Your task to perform on an android device: change the clock display to digital Image 0: 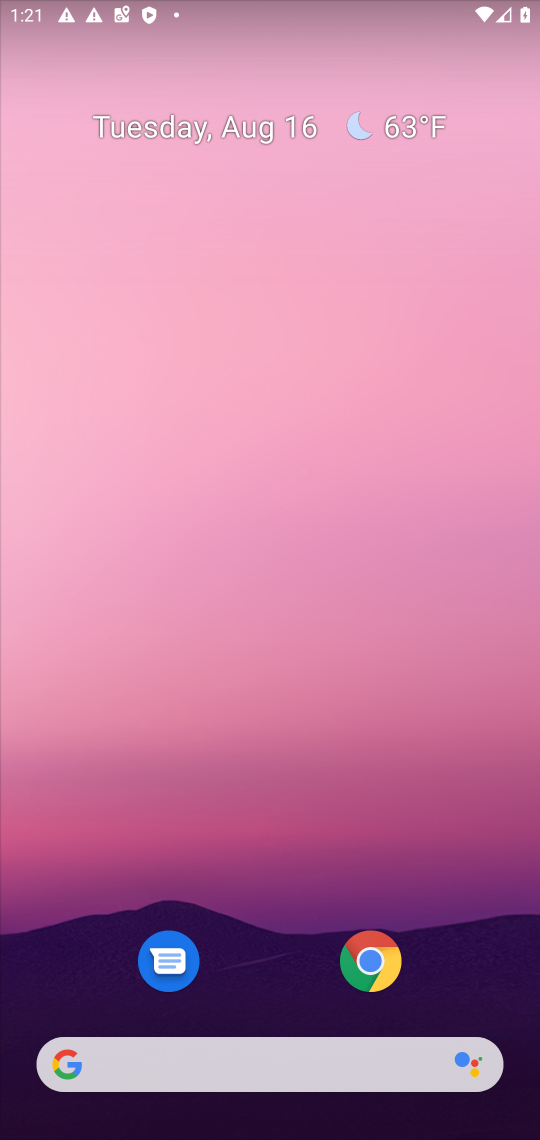
Step 0: drag from (501, 947) to (417, 5)
Your task to perform on an android device: change the clock display to digital Image 1: 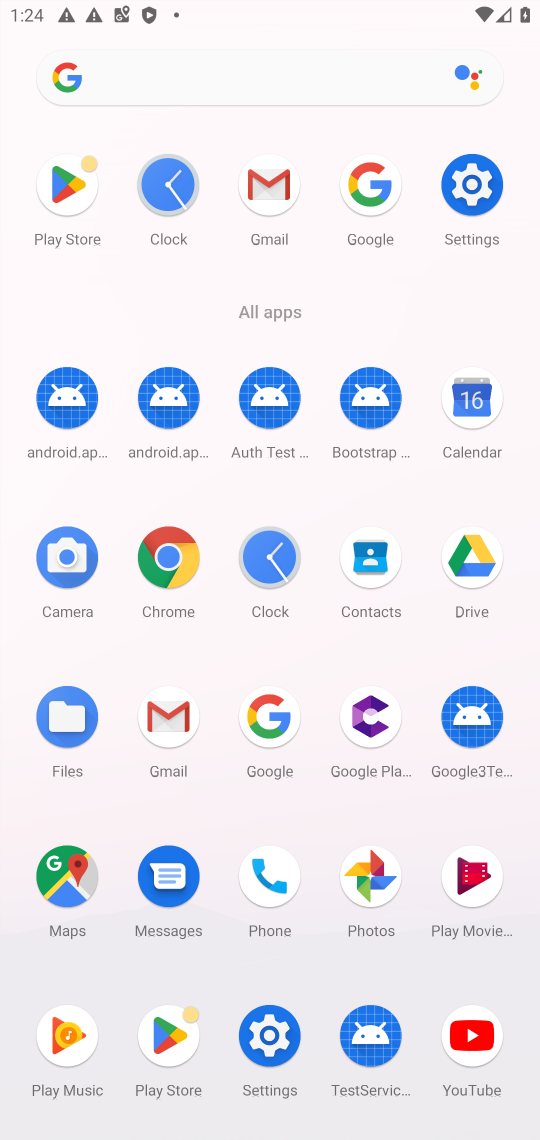
Step 1: click (275, 585)
Your task to perform on an android device: change the clock display to digital Image 2: 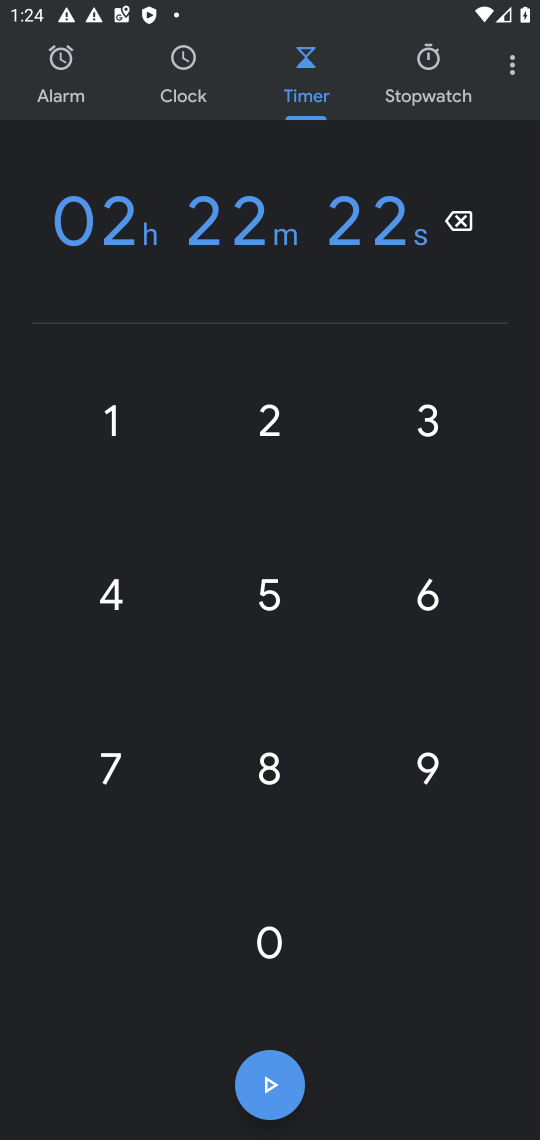
Step 2: click (521, 63)
Your task to perform on an android device: change the clock display to digital Image 3: 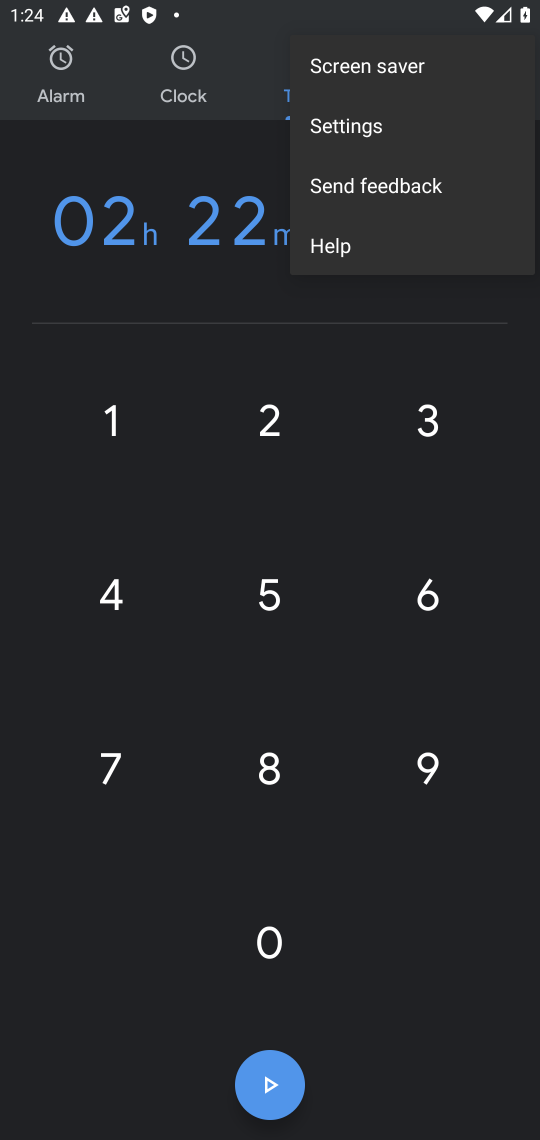
Step 3: click (409, 124)
Your task to perform on an android device: change the clock display to digital Image 4: 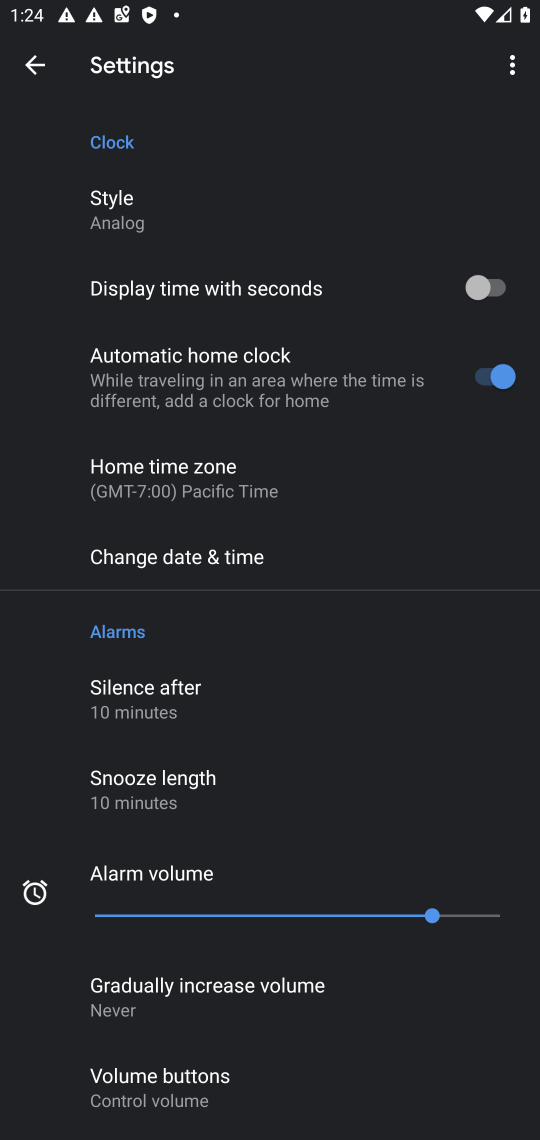
Step 4: click (115, 216)
Your task to perform on an android device: change the clock display to digital Image 5: 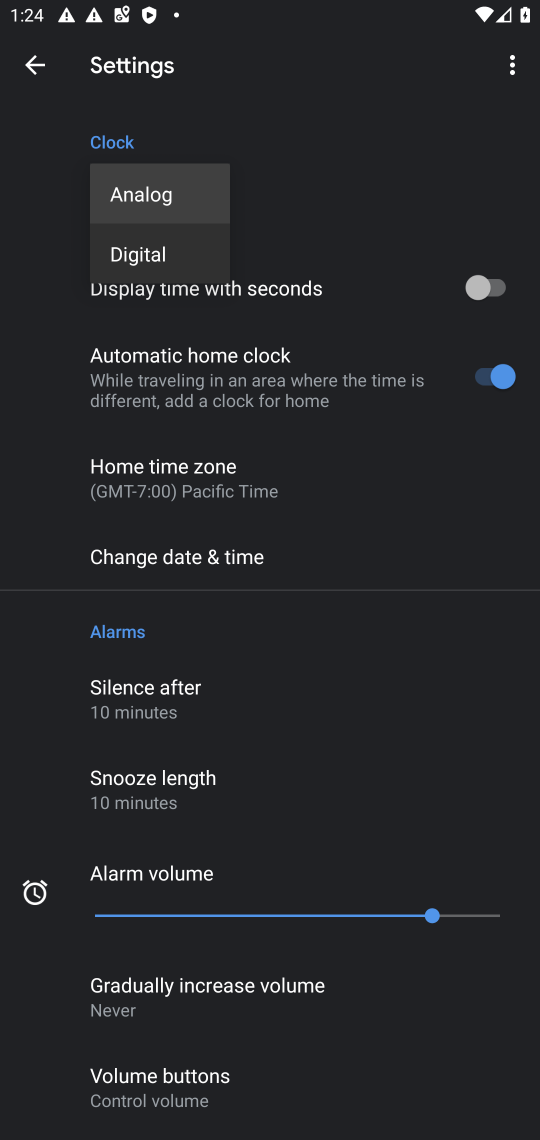
Step 5: click (128, 250)
Your task to perform on an android device: change the clock display to digital Image 6: 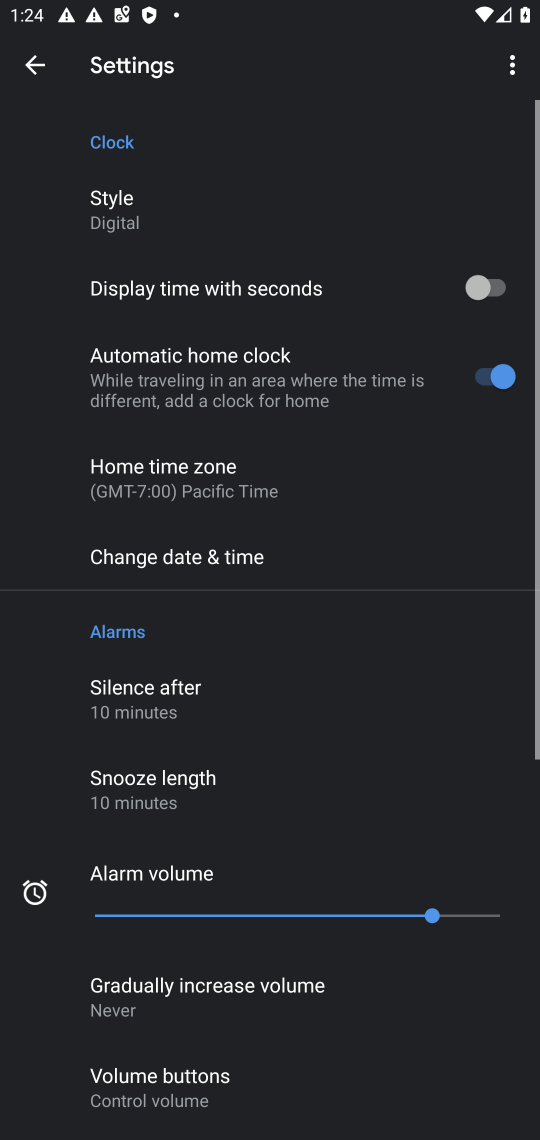
Step 6: task complete